Your task to perform on an android device: refresh tabs in the chrome app Image 0: 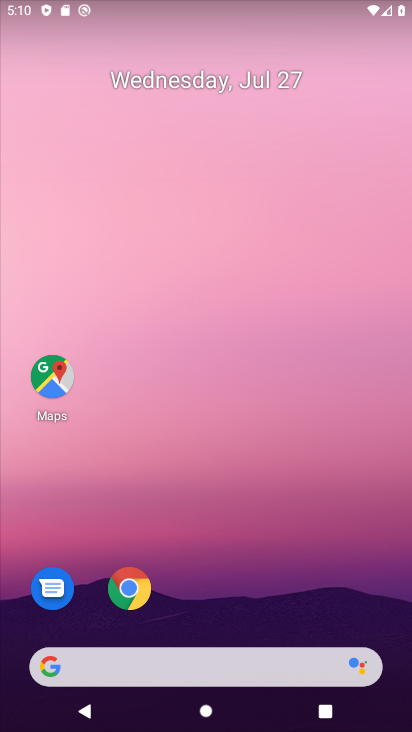
Step 0: drag from (309, 657) to (410, 11)
Your task to perform on an android device: refresh tabs in the chrome app Image 1: 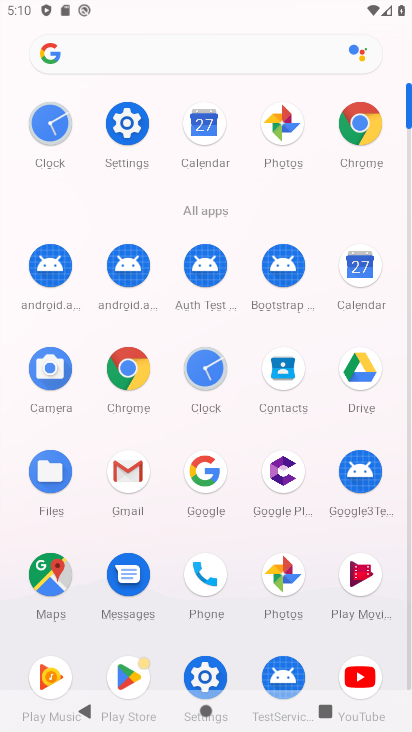
Step 1: click (129, 382)
Your task to perform on an android device: refresh tabs in the chrome app Image 2: 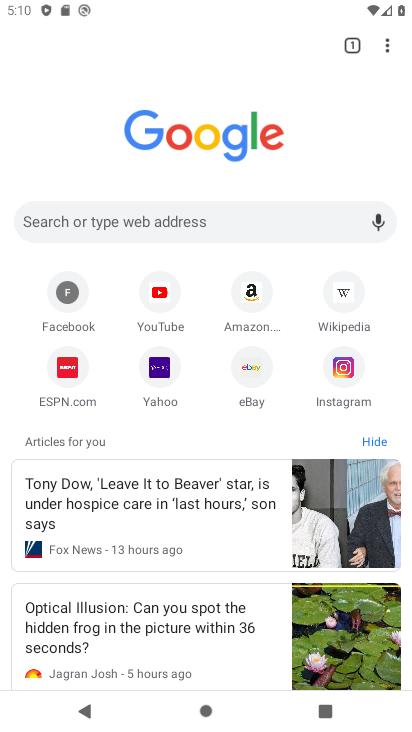
Step 2: click (392, 43)
Your task to perform on an android device: refresh tabs in the chrome app Image 3: 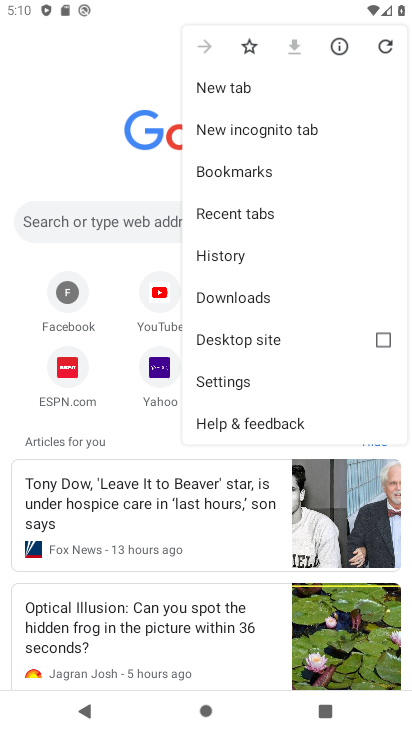
Step 3: click (380, 40)
Your task to perform on an android device: refresh tabs in the chrome app Image 4: 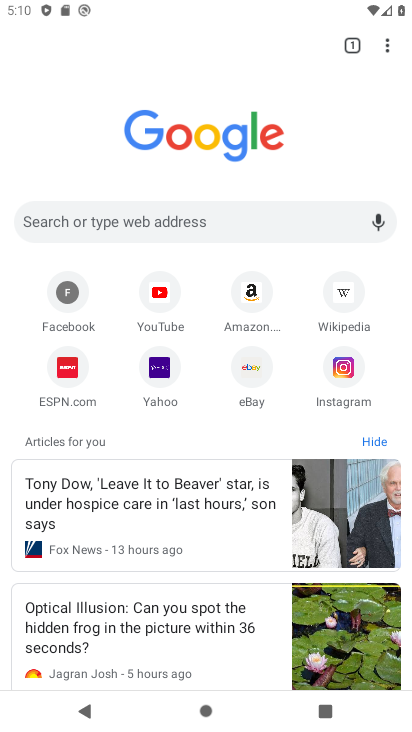
Step 4: task complete